Your task to perform on an android device: turn off javascript in the chrome app Image 0: 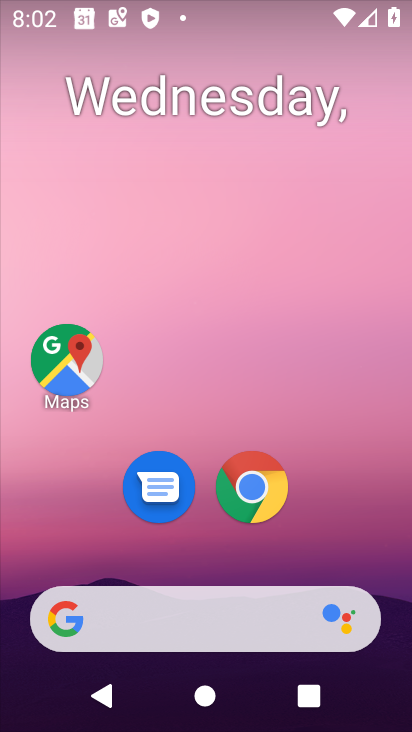
Step 0: drag from (339, 539) to (359, 298)
Your task to perform on an android device: turn off javascript in the chrome app Image 1: 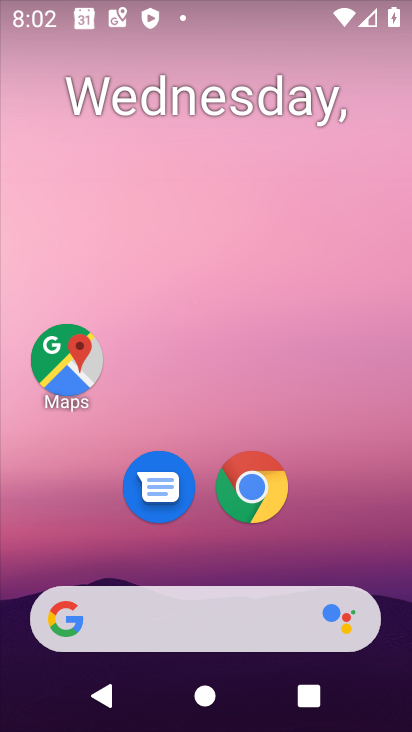
Step 1: drag from (372, 548) to (366, 198)
Your task to perform on an android device: turn off javascript in the chrome app Image 2: 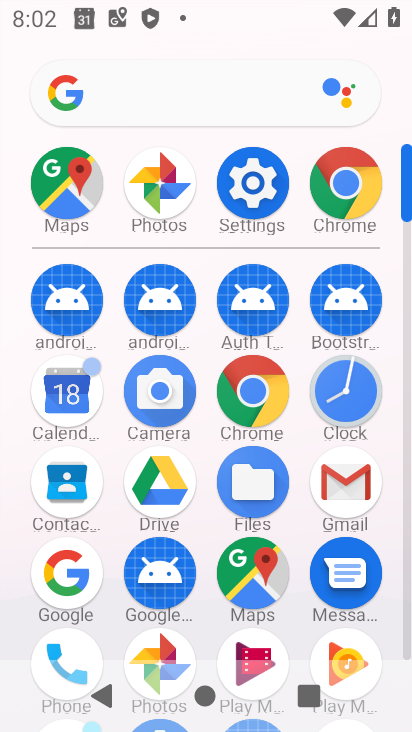
Step 2: click (274, 397)
Your task to perform on an android device: turn off javascript in the chrome app Image 3: 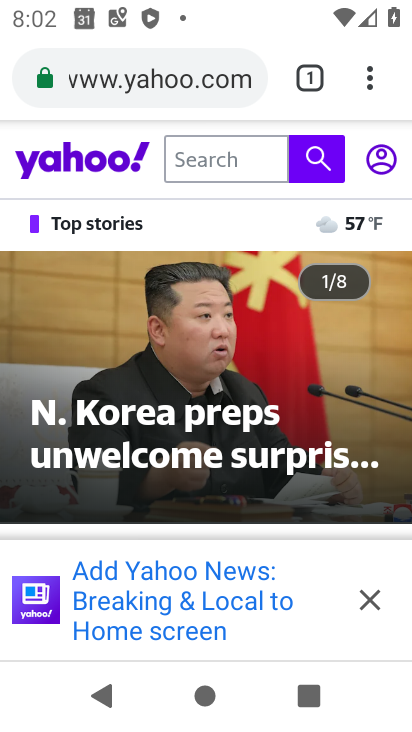
Step 3: click (370, 87)
Your task to perform on an android device: turn off javascript in the chrome app Image 4: 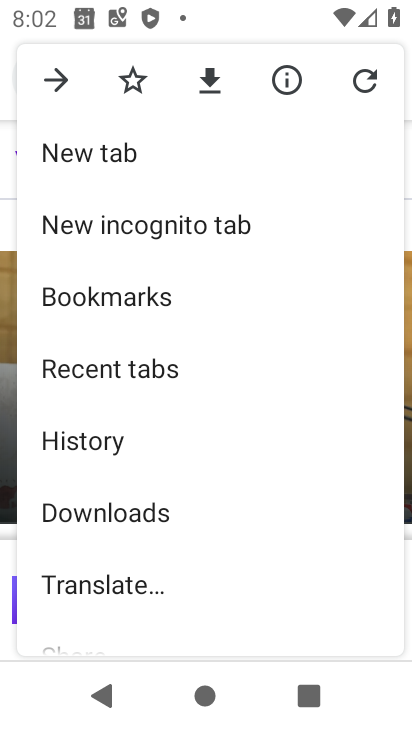
Step 4: drag from (267, 543) to (283, 429)
Your task to perform on an android device: turn off javascript in the chrome app Image 5: 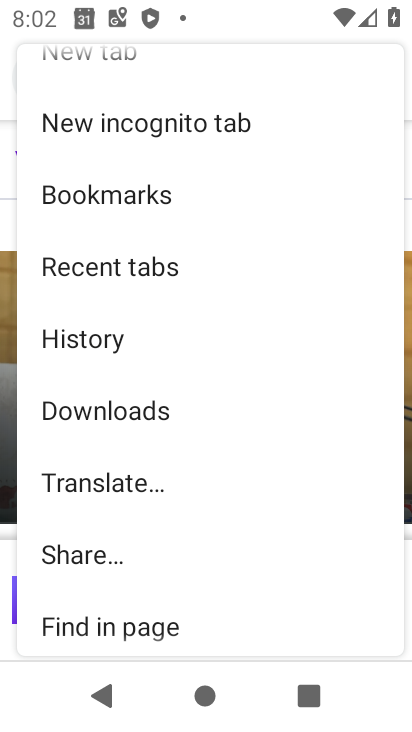
Step 5: drag from (271, 550) to (278, 422)
Your task to perform on an android device: turn off javascript in the chrome app Image 6: 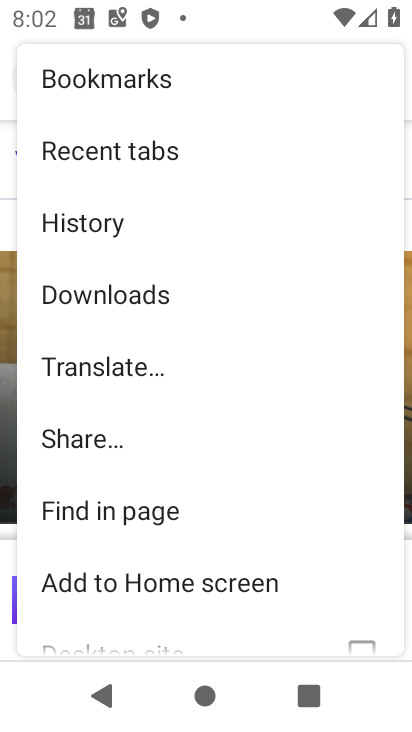
Step 6: drag from (288, 556) to (294, 422)
Your task to perform on an android device: turn off javascript in the chrome app Image 7: 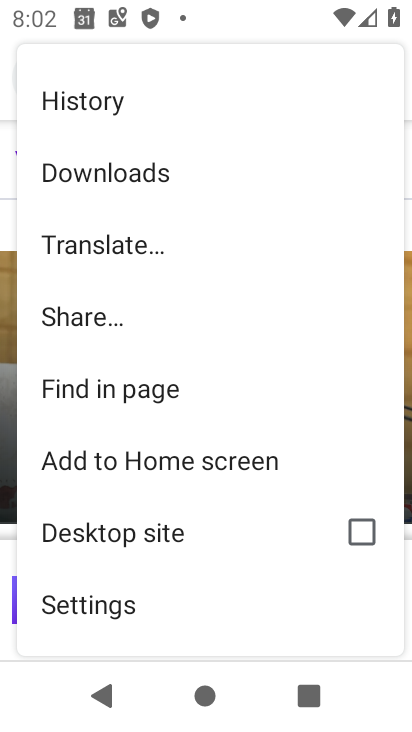
Step 7: drag from (278, 586) to (285, 480)
Your task to perform on an android device: turn off javascript in the chrome app Image 8: 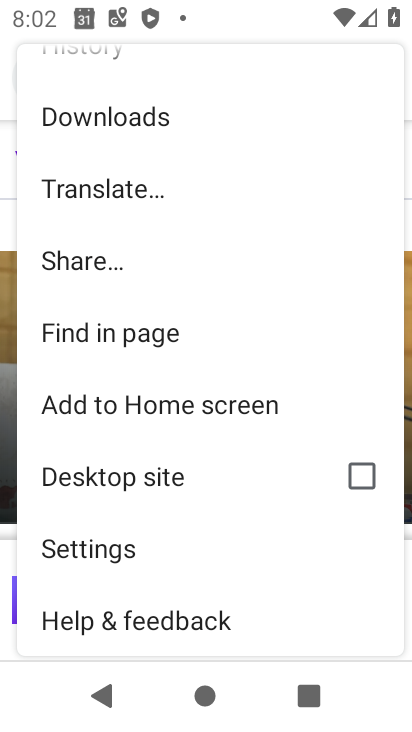
Step 8: click (153, 569)
Your task to perform on an android device: turn off javascript in the chrome app Image 9: 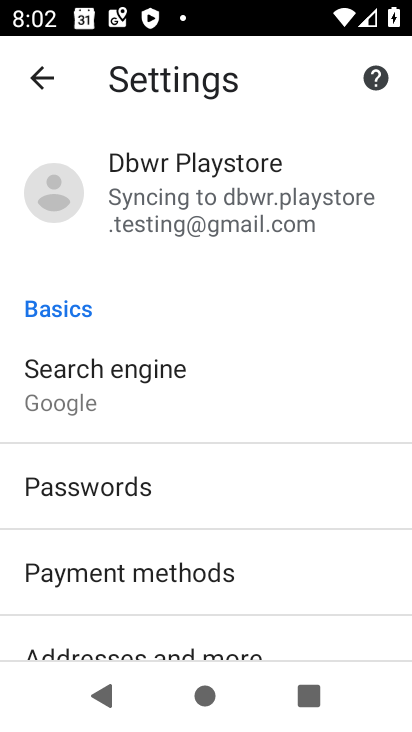
Step 9: drag from (275, 579) to (289, 501)
Your task to perform on an android device: turn off javascript in the chrome app Image 10: 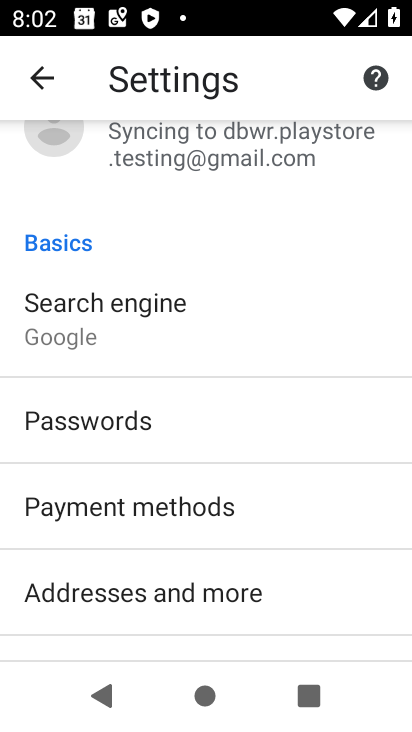
Step 10: drag from (312, 621) to (312, 527)
Your task to perform on an android device: turn off javascript in the chrome app Image 11: 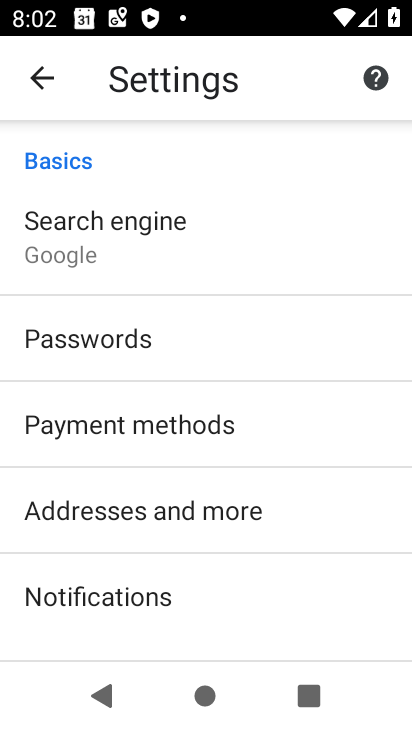
Step 11: drag from (317, 601) to (319, 491)
Your task to perform on an android device: turn off javascript in the chrome app Image 12: 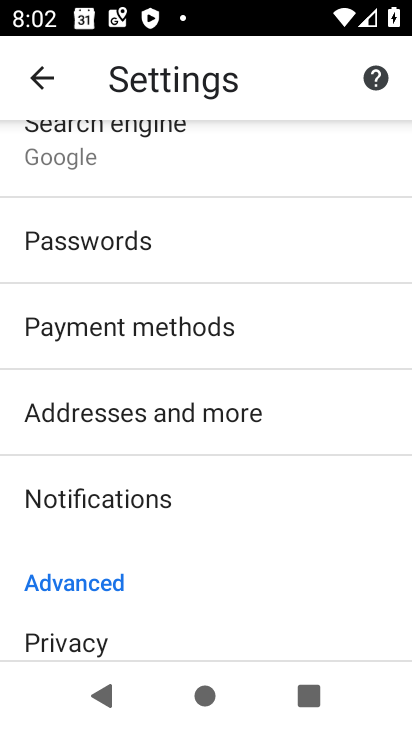
Step 12: drag from (320, 584) to (319, 495)
Your task to perform on an android device: turn off javascript in the chrome app Image 13: 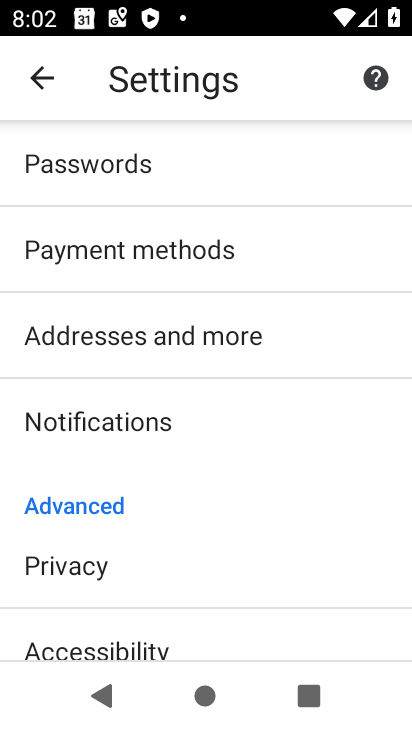
Step 13: drag from (319, 616) to (319, 529)
Your task to perform on an android device: turn off javascript in the chrome app Image 14: 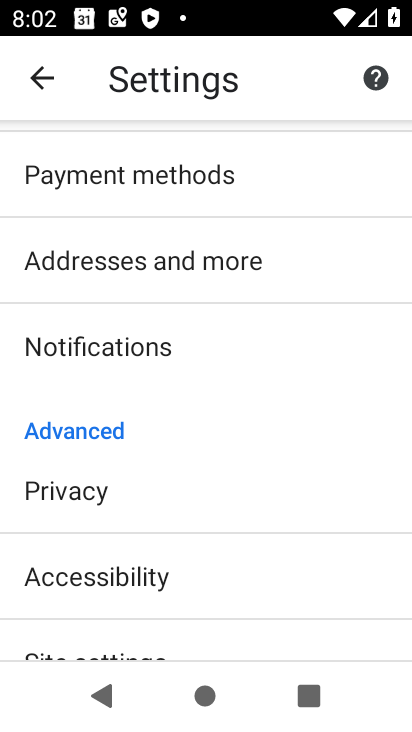
Step 14: drag from (319, 615) to (319, 532)
Your task to perform on an android device: turn off javascript in the chrome app Image 15: 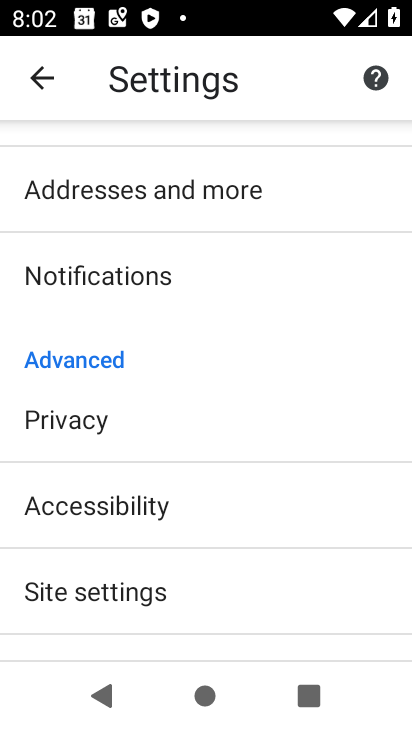
Step 15: drag from (315, 606) to (315, 535)
Your task to perform on an android device: turn off javascript in the chrome app Image 16: 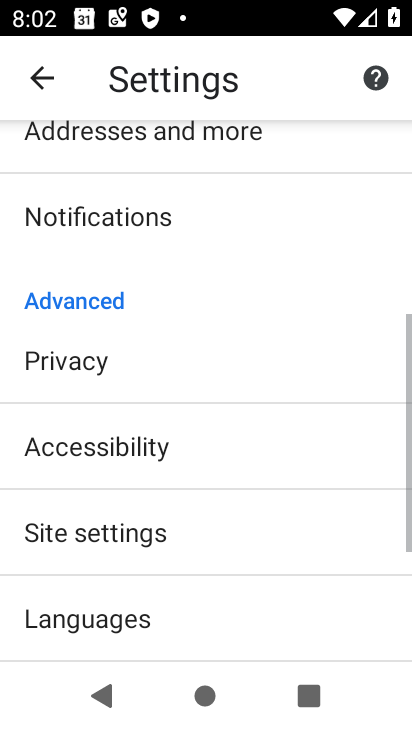
Step 16: click (315, 535)
Your task to perform on an android device: turn off javascript in the chrome app Image 17: 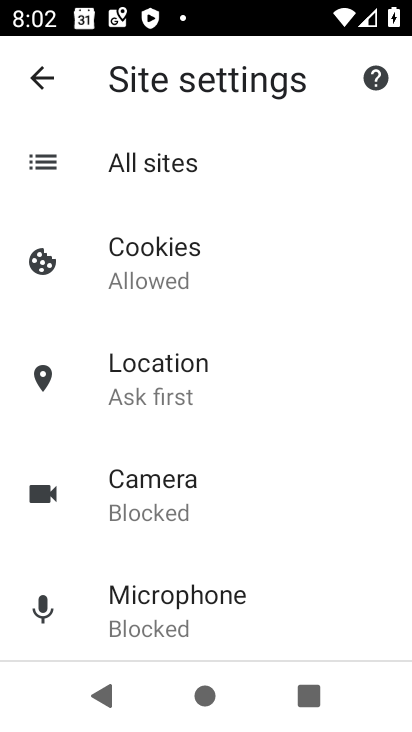
Step 17: drag from (317, 609) to (318, 538)
Your task to perform on an android device: turn off javascript in the chrome app Image 18: 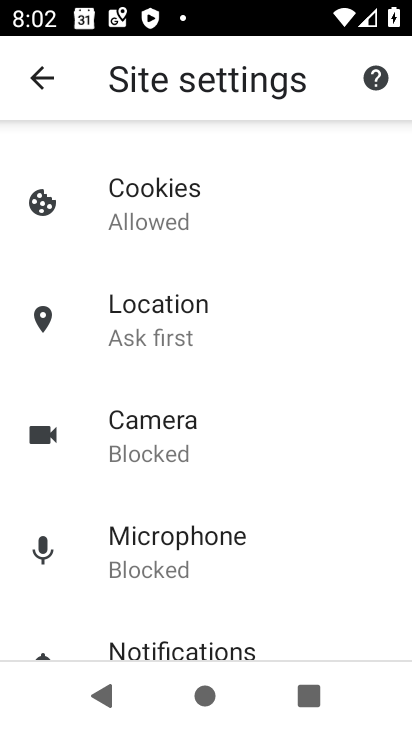
Step 18: drag from (327, 608) to (332, 536)
Your task to perform on an android device: turn off javascript in the chrome app Image 19: 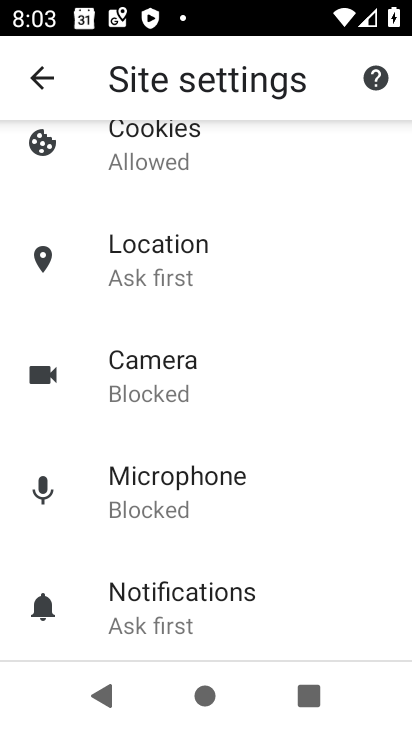
Step 19: drag from (332, 595) to (333, 541)
Your task to perform on an android device: turn off javascript in the chrome app Image 20: 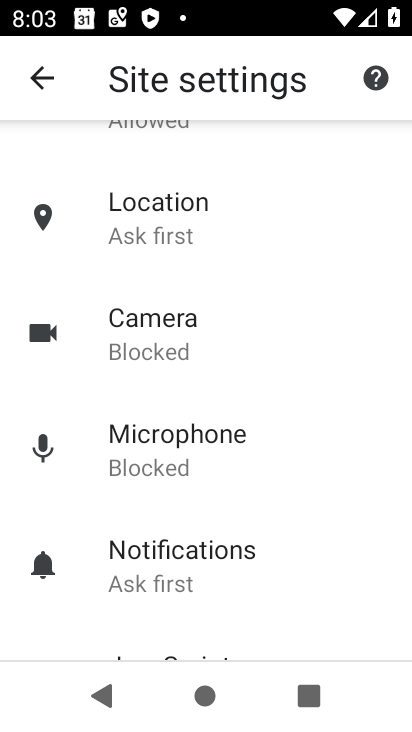
Step 20: drag from (332, 593) to (332, 547)
Your task to perform on an android device: turn off javascript in the chrome app Image 21: 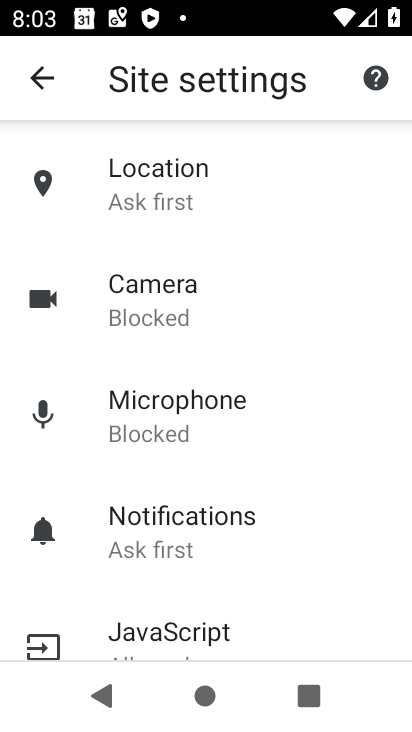
Step 21: drag from (331, 578) to (331, 530)
Your task to perform on an android device: turn off javascript in the chrome app Image 22: 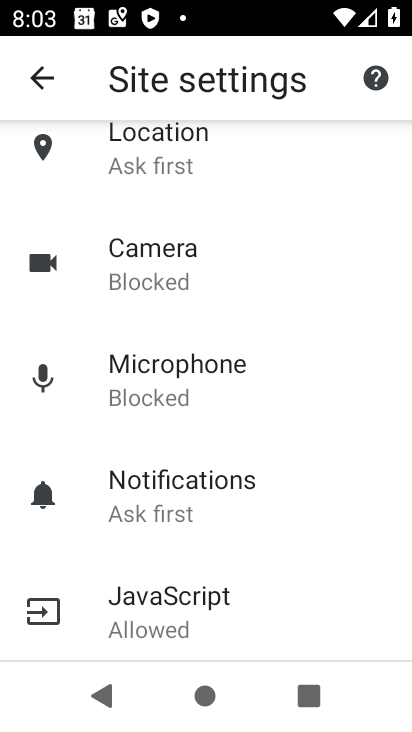
Step 22: drag from (329, 573) to (332, 536)
Your task to perform on an android device: turn off javascript in the chrome app Image 23: 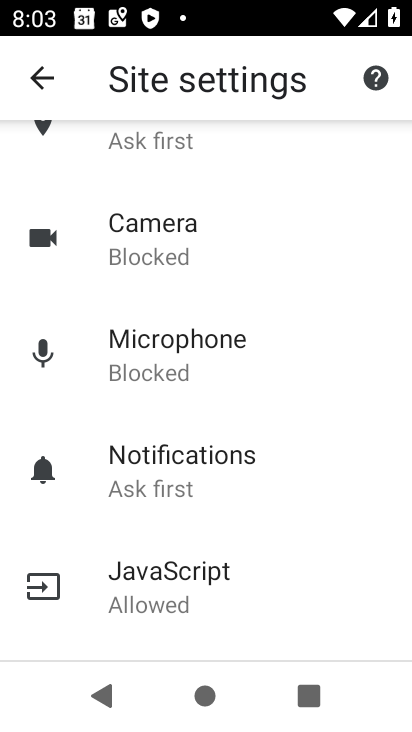
Step 23: drag from (335, 574) to (335, 534)
Your task to perform on an android device: turn off javascript in the chrome app Image 24: 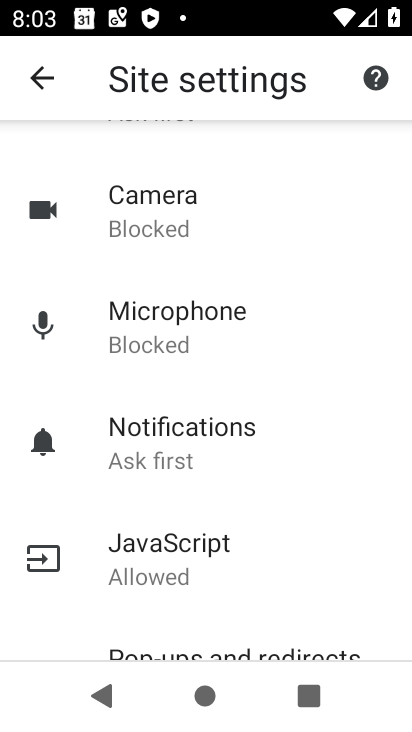
Step 24: click (238, 570)
Your task to perform on an android device: turn off javascript in the chrome app Image 25: 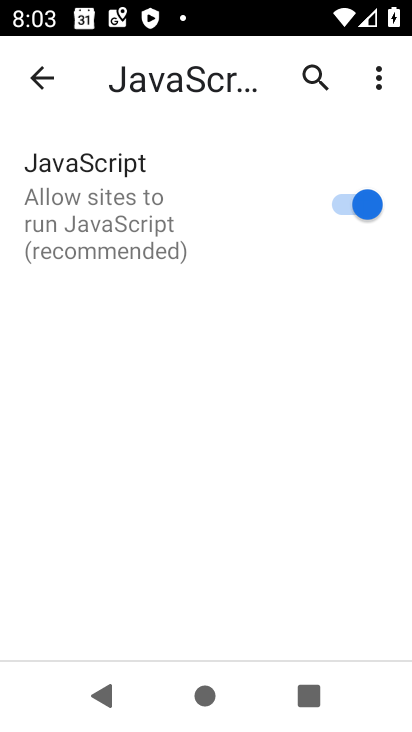
Step 25: click (353, 217)
Your task to perform on an android device: turn off javascript in the chrome app Image 26: 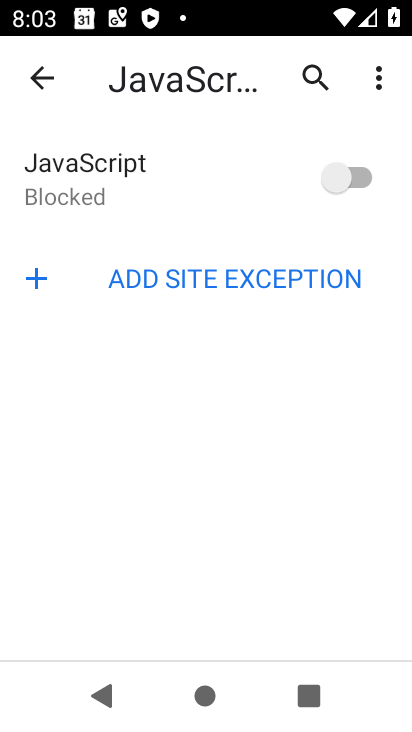
Step 26: task complete